Your task to perform on an android device: Search for seafood restaurants on Google Maps Image 0: 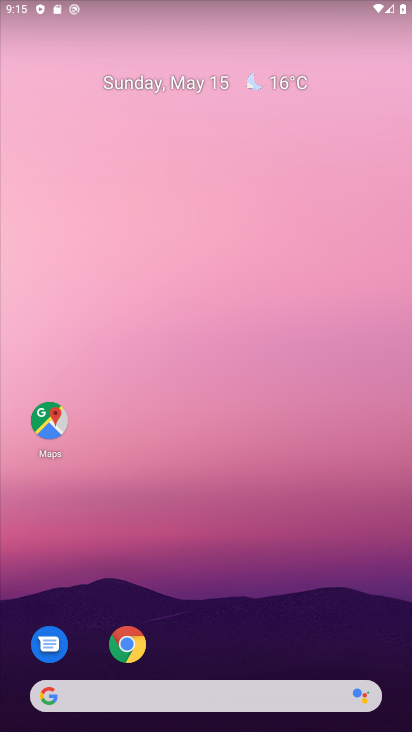
Step 0: click (57, 416)
Your task to perform on an android device: Search for seafood restaurants on Google Maps Image 1: 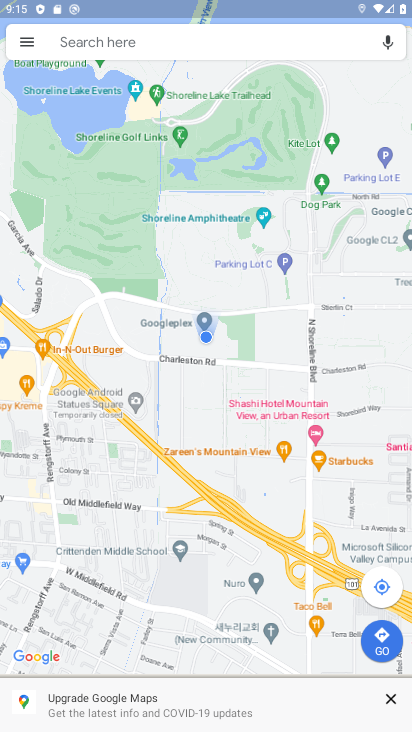
Step 1: click (217, 47)
Your task to perform on an android device: Search for seafood restaurants on Google Maps Image 2: 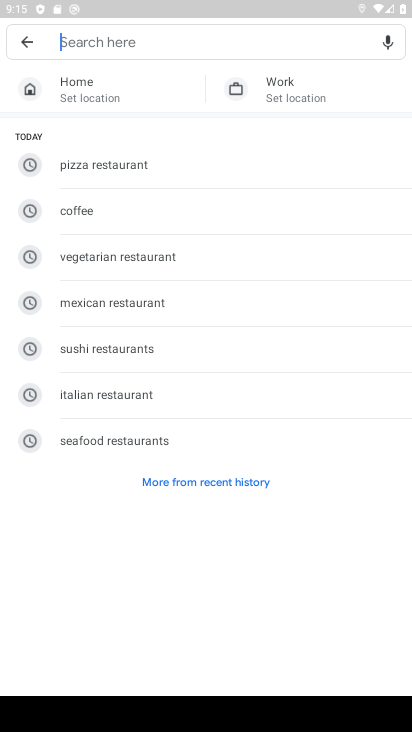
Step 2: click (125, 432)
Your task to perform on an android device: Search for seafood restaurants on Google Maps Image 3: 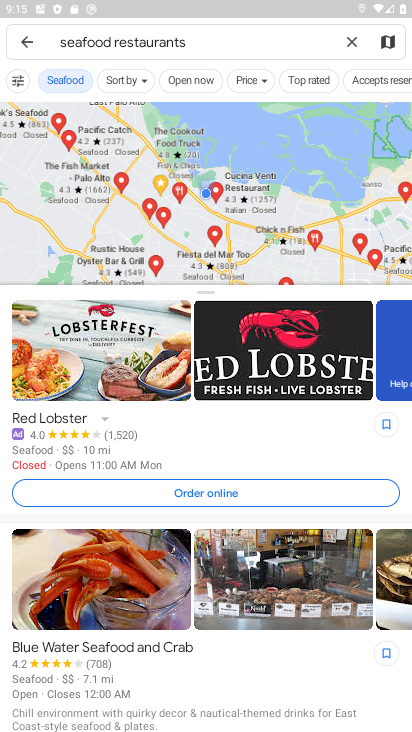
Step 3: task complete